Your task to perform on an android device: What's on the menu at Five Guys? Image 0: 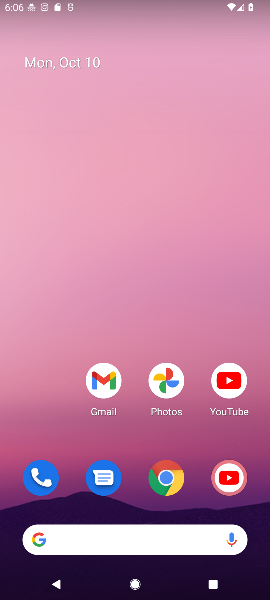
Step 0: click (172, 487)
Your task to perform on an android device: What's on the menu at Five Guys? Image 1: 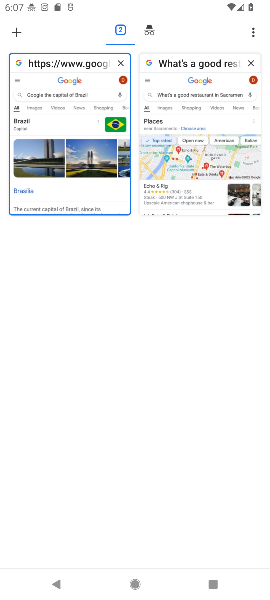
Step 1: click (65, 95)
Your task to perform on an android device: What's on the menu at Five Guys? Image 2: 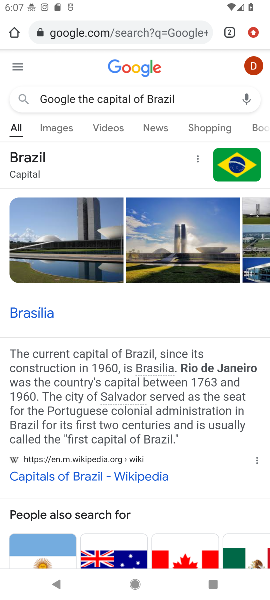
Step 2: click (100, 30)
Your task to perform on an android device: What's on the menu at Five Guys? Image 3: 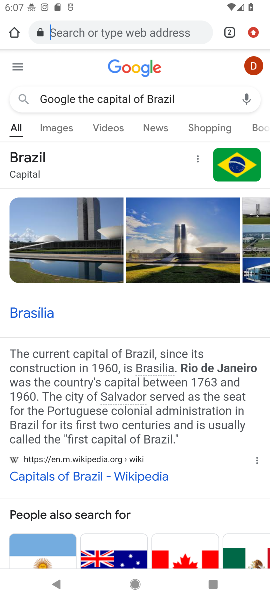
Step 3: click (100, 30)
Your task to perform on an android device: What's on the menu at Five Guys? Image 4: 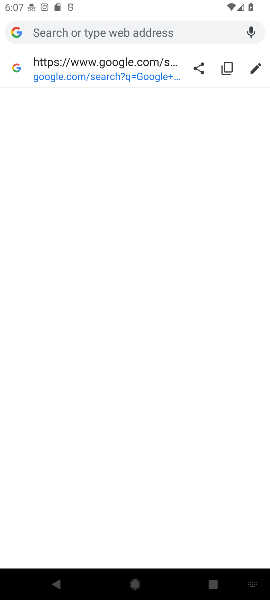
Step 4: type "What's on the menu at Five Guys?"
Your task to perform on an android device: What's on the menu at Five Guys? Image 5: 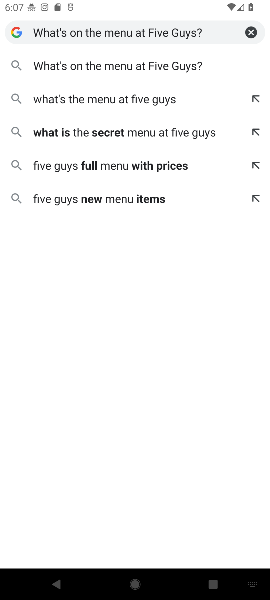
Step 5: click (209, 71)
Your task to perform on an android device: What's on the menu at Five Guys? Image 6: 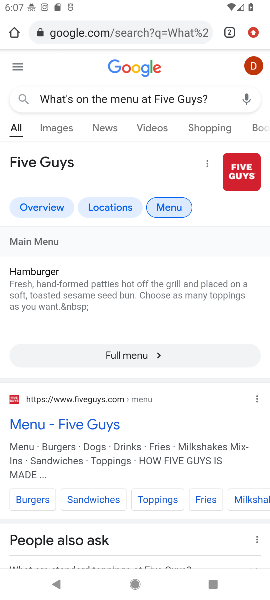
Step 6: click (113, 353)
Your task to perform on an android device: What's on the menu at Five Guys? Image 7: 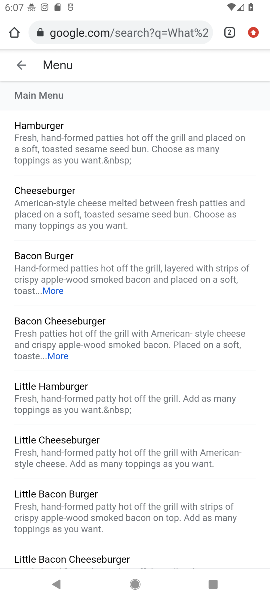
Step 7: task complete